Your task to perform on an android device: change notifications settings Image 0: 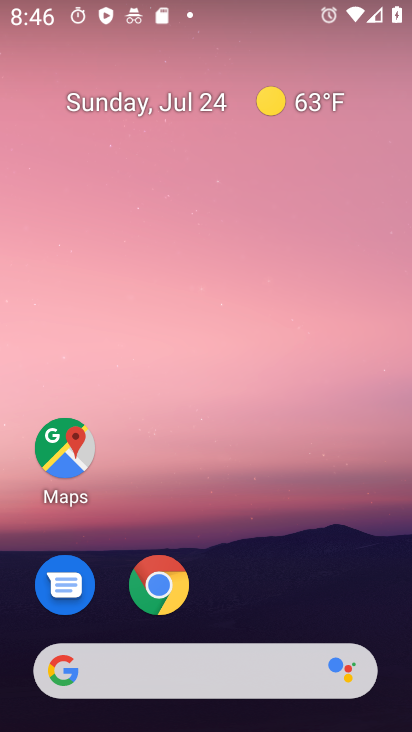
Step 0: drag from (249, 601) to (240, 178)
Your task to perform on an android device: change notifications settings Image 1: 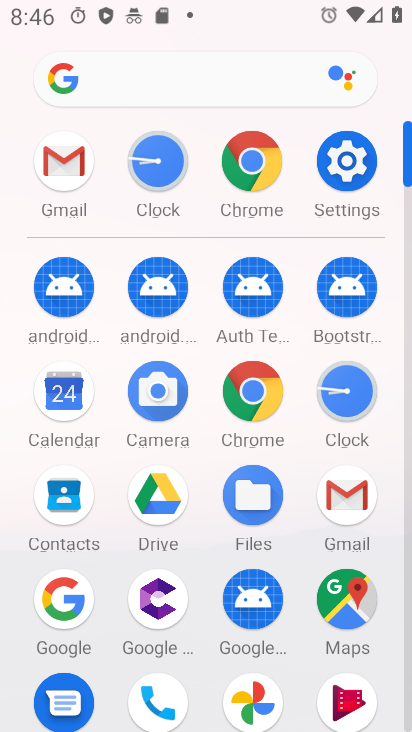
Step 1: click (335, 184)
Your task to perform on an android device: change notifications settings Image 2: 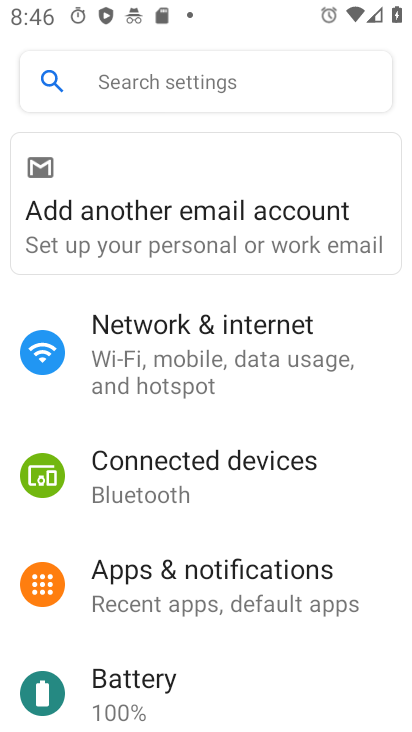
Step 2: click (177, 586)
Your task to perform on an android device: change notifications settings Image 3: 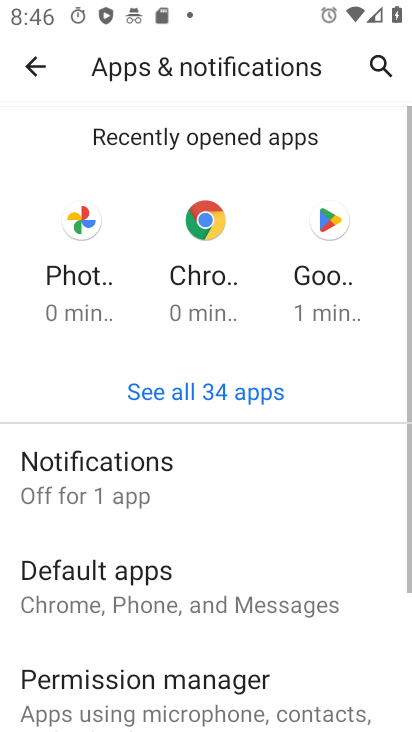
Step 3: click (117, 460)
Your task to perform on an android device: change notifications settings Image 4: 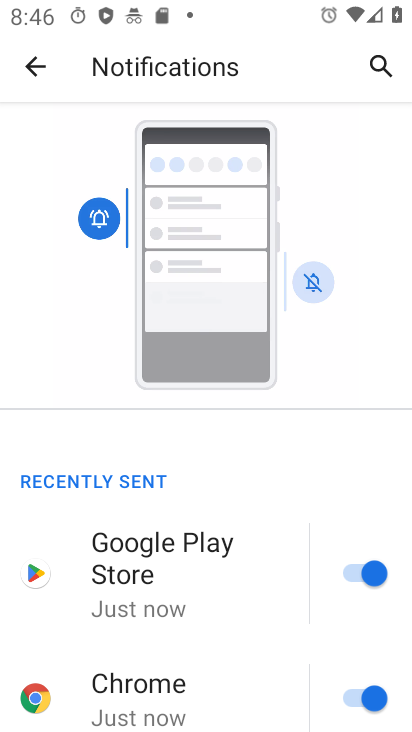
Step 4: drag from (233, 582) to (199, 616)
Your task to perform on an android device: change notifications settings Image 5: 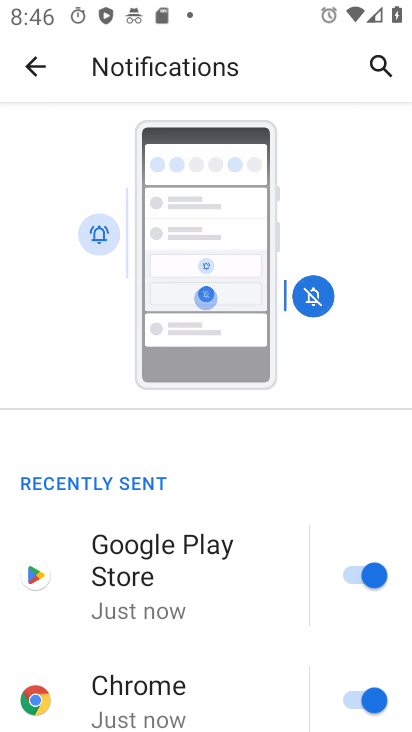
Step 5: click (323, 299)
Your task to perform on an android device: change notifications settings Image 6: 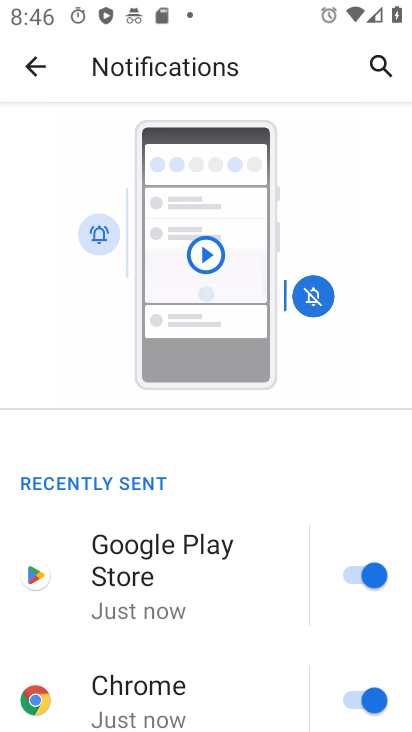
Step 6: task complete